Your task to perform on an android device: Open CNN.com Image 0: 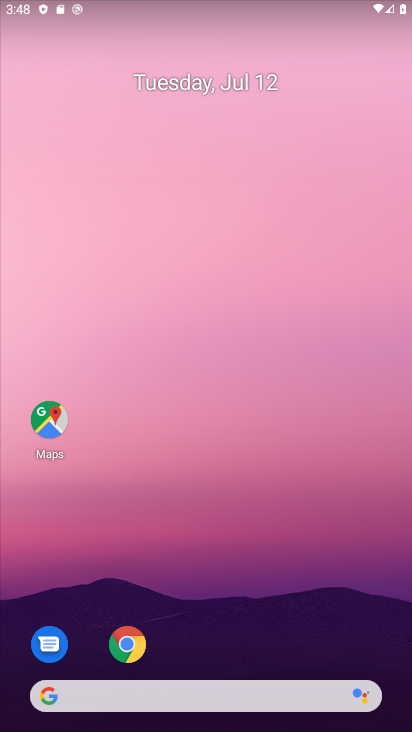
Step 0: click (122, 649)
Your task to perform on an android device: Open CNN.com Image 1: 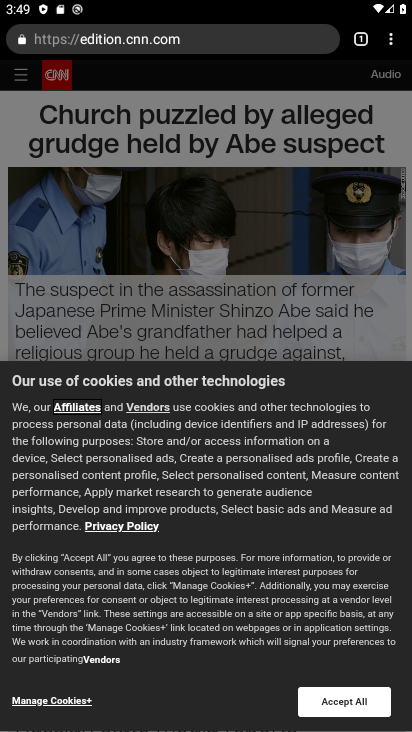
Step 1: task complete